Your task to perform on an android device: Go to sound settings Image 0: 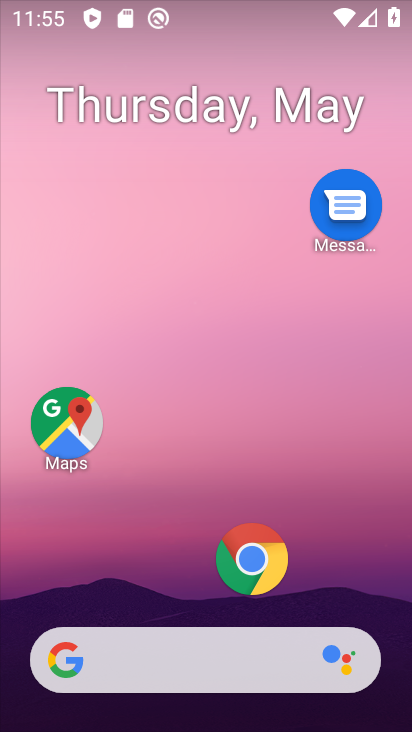
Step 0: drag from (156, 640) to (202, 204)
Your task to perform on an android device: Go to sound settings Image 1: 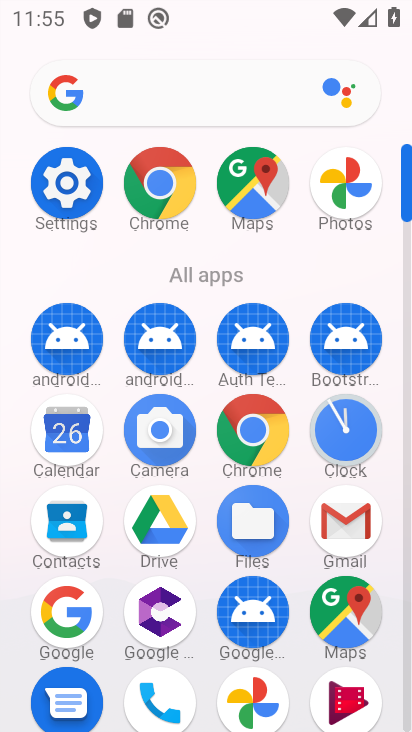
Step 1: click (71, 206)
Your task to perform on an android device: Go to sound settings Image 2: 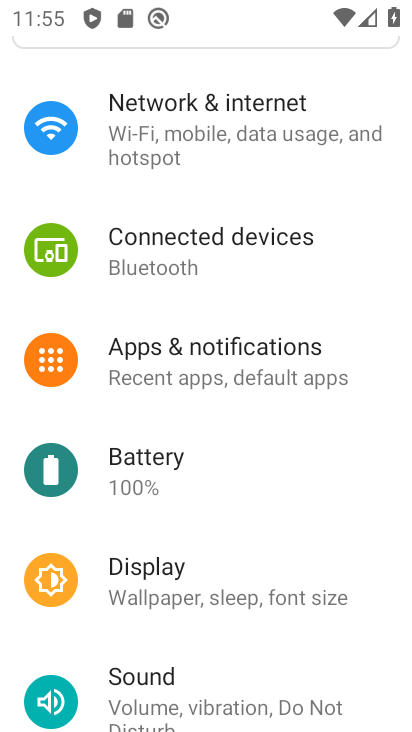
Step 2: drag from (212, 532) to (258, 276)
Your task to perform on an android device: Go to sound settings Image 3: 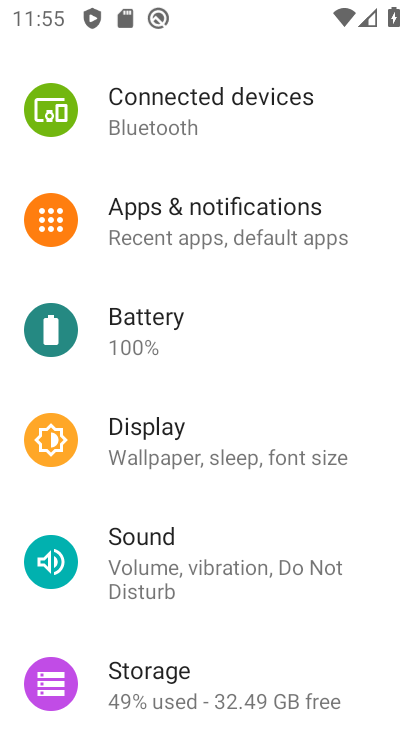
Step 3: click (201, 553)
Your task to perform on an android device: Go to sound settings Image 4: 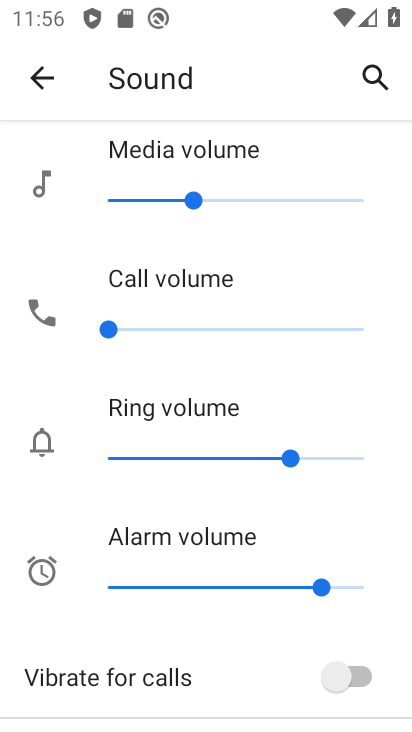
Step 4: task complete